Your task to perform on an android device: toggle wifi Image 0: 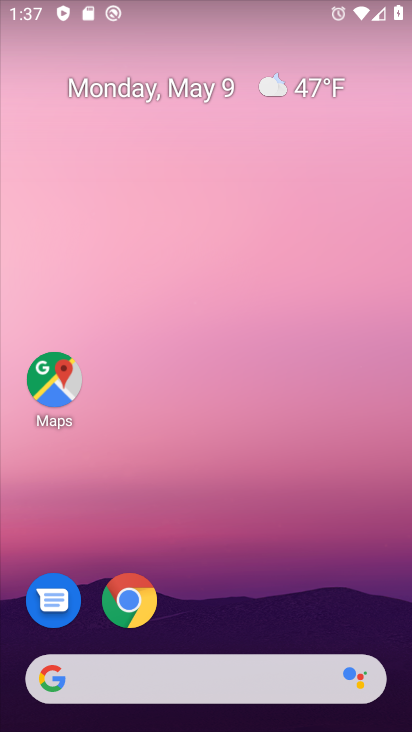
Step 0: drag from (199, 672) to (182, 301)
Your task to perform on an android device: toggle wifi Image 1: 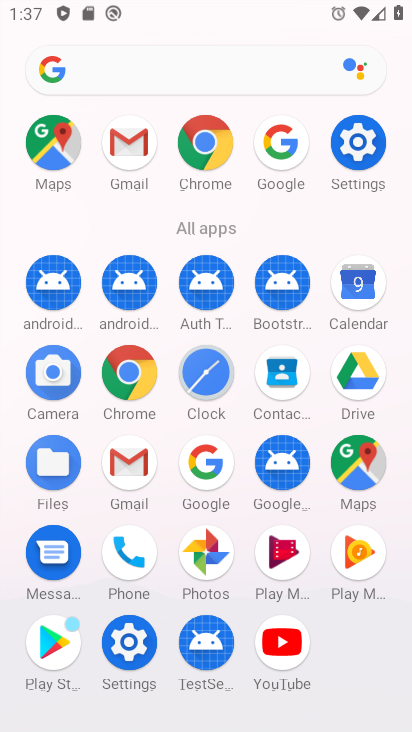
Step 1: click (365, 149)
Your task to perform on an android device: toggle wifi Image 2: 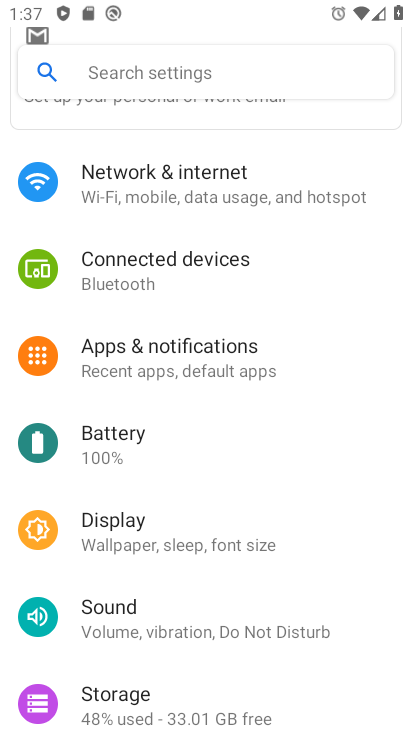
Step 2: click (209, 202)
Your task to perform on an android device: toggle wifi Image 3: 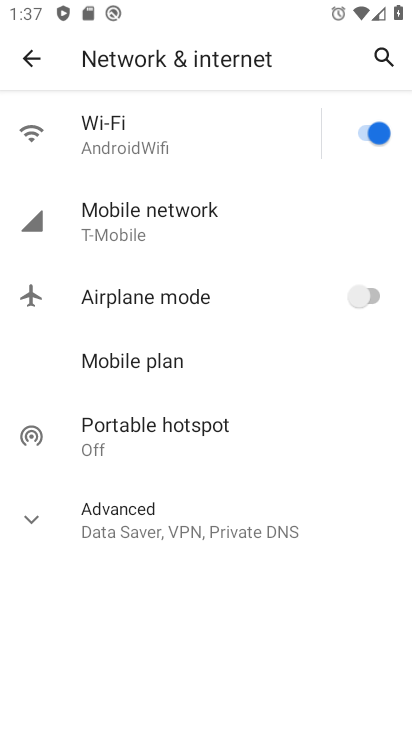
Step 3: click (369, 126)
Your task to perform on an android device: toggle wifi Image 4: 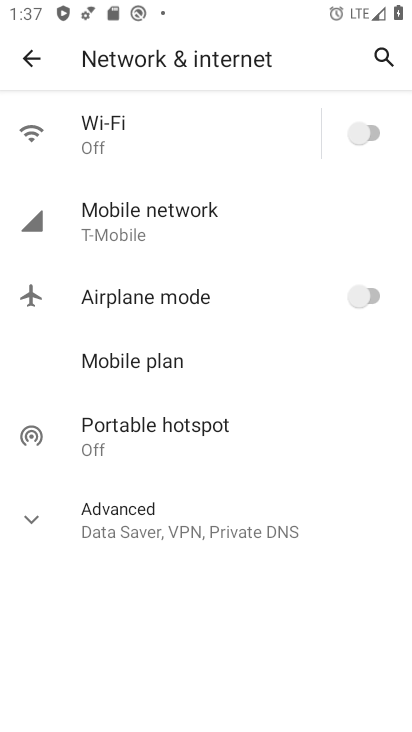
Step 4: task complete